Your task to perform on an android device: Add macbook air to the cart on target Image 0: 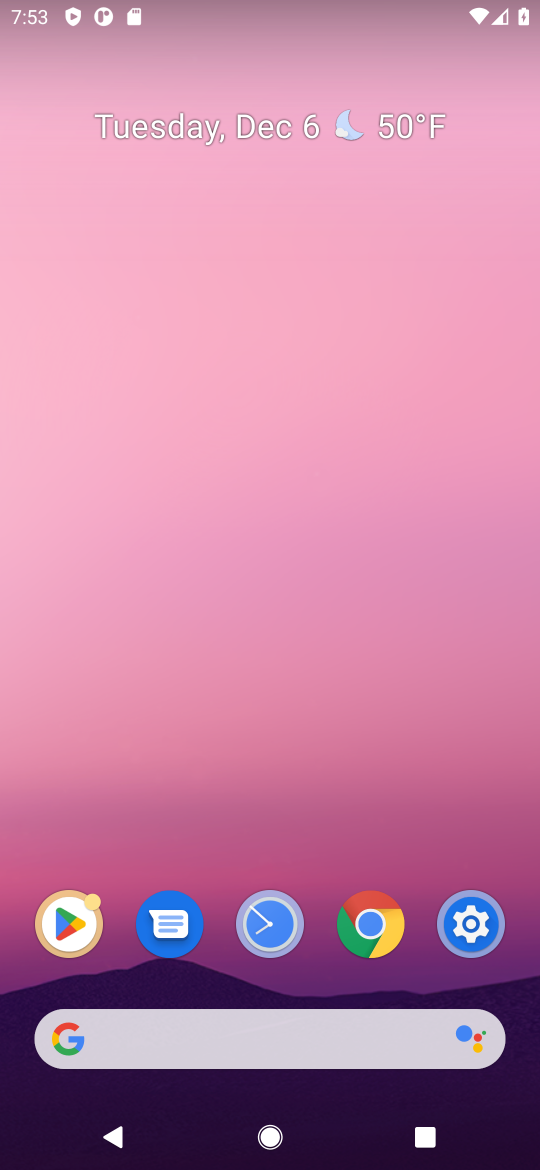
Step 0: click (254, 1043)
Your task to perform on an android device: Add macbook air to the cart on target Image 1: 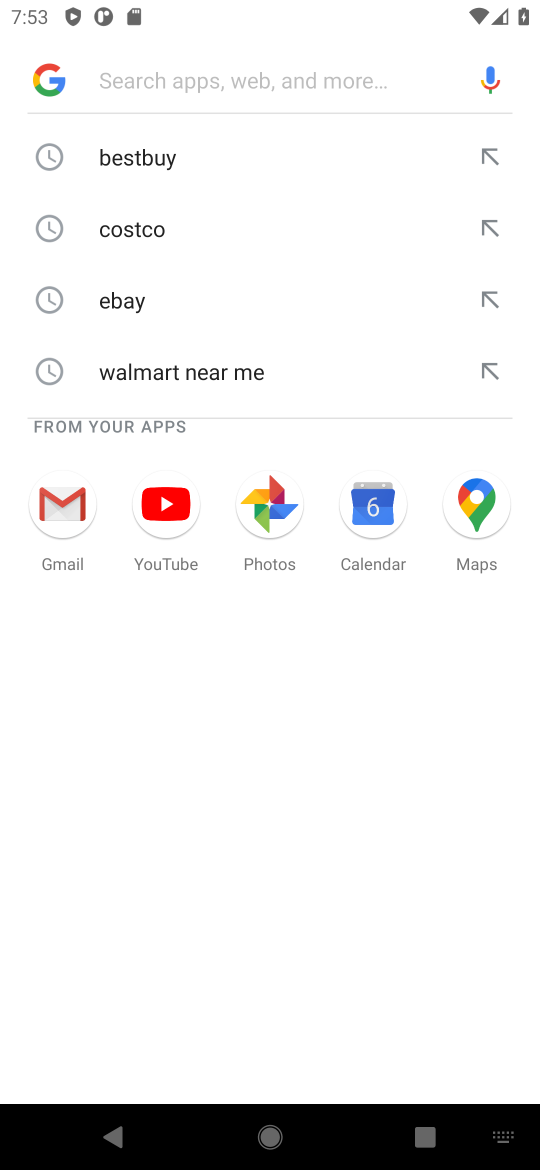
Step 1: type "target"
Your task to perform on an android device: Add macbook air to the cart on target Image 2: 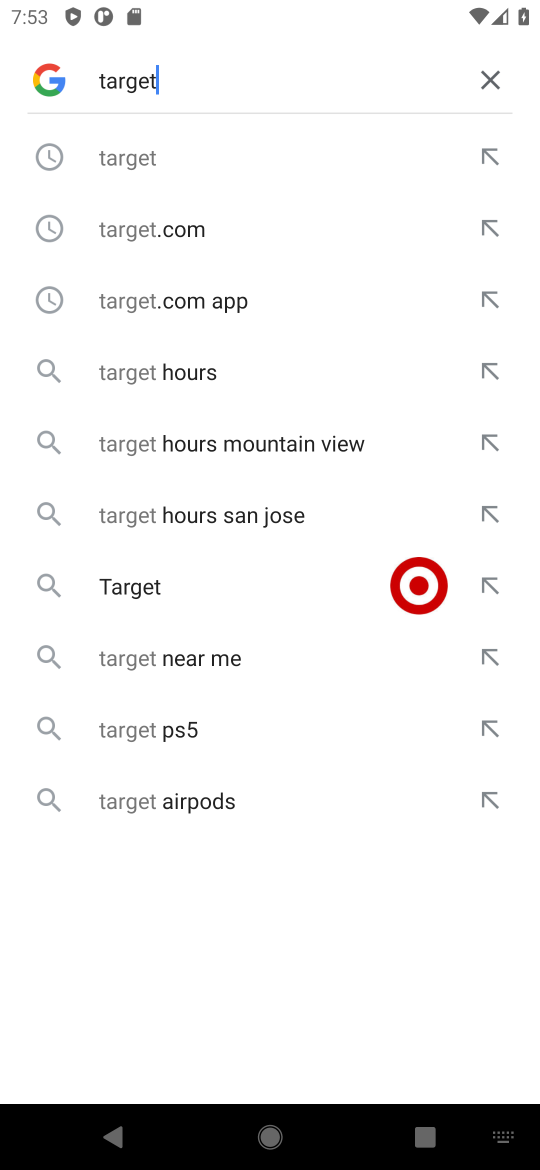
Step 2: click (149, 600)
Your task to perform on an android device: Add macbook air to the cart on target Image 3: 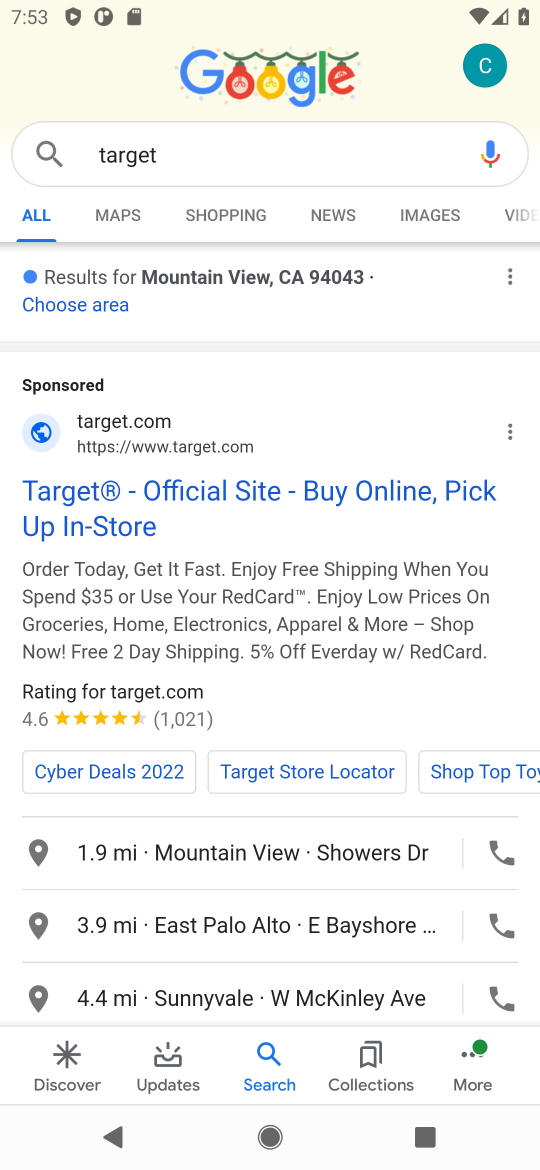
Step 3: click (121, 532)
Your task to perform on an android device: Add macbook air to the cart on target Image 4: 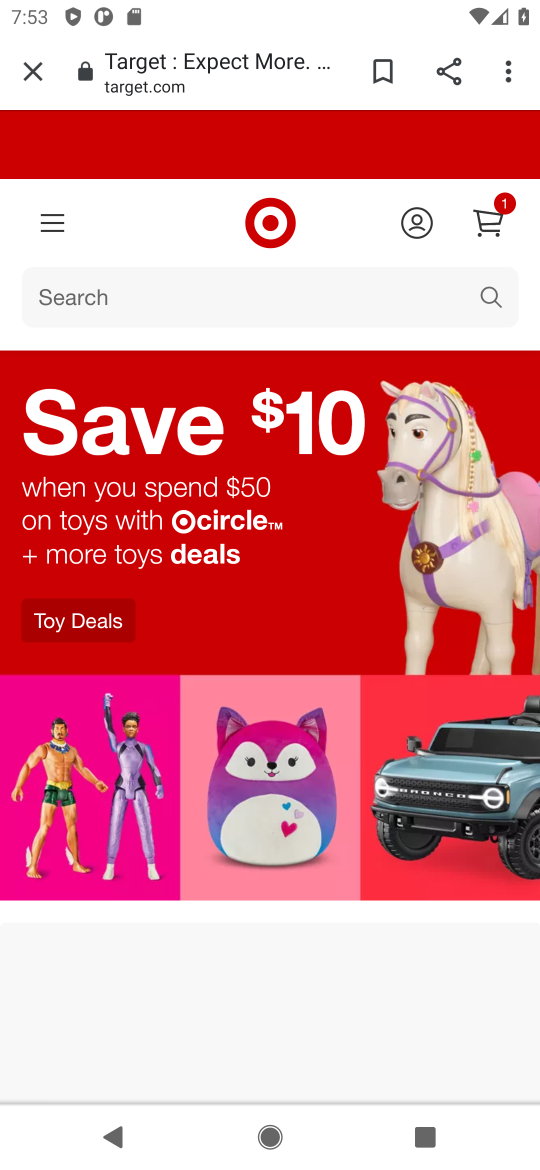
Step 4: click (119, 295)
Your task to perform on an android device: Add macbook air to the cart on target Image 5: 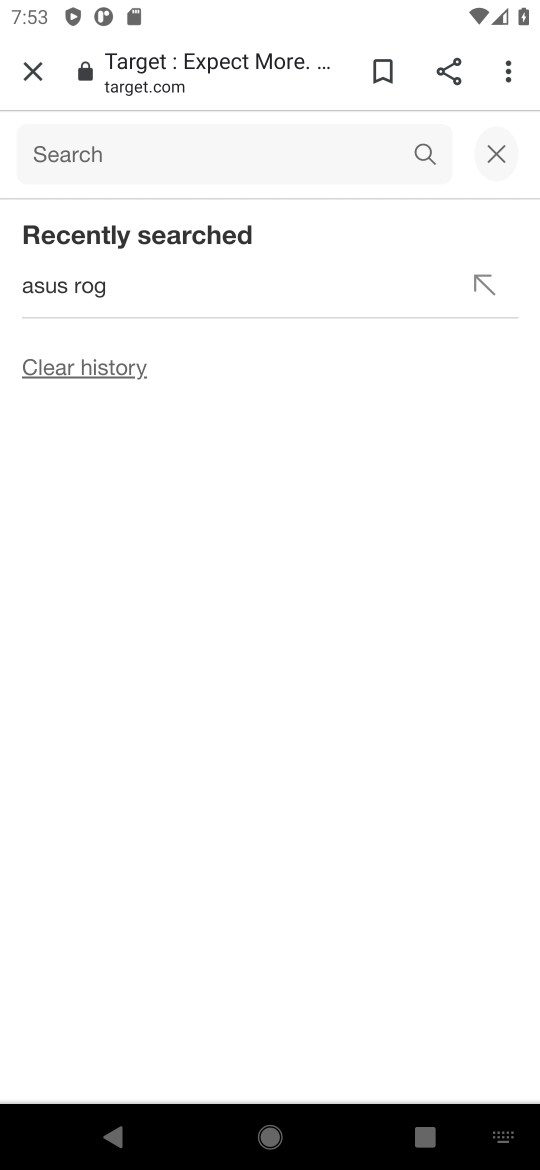
Step 5: type "macbook air"
Your task to perform on an android device: Add macbook air to the cart on target Image 6: 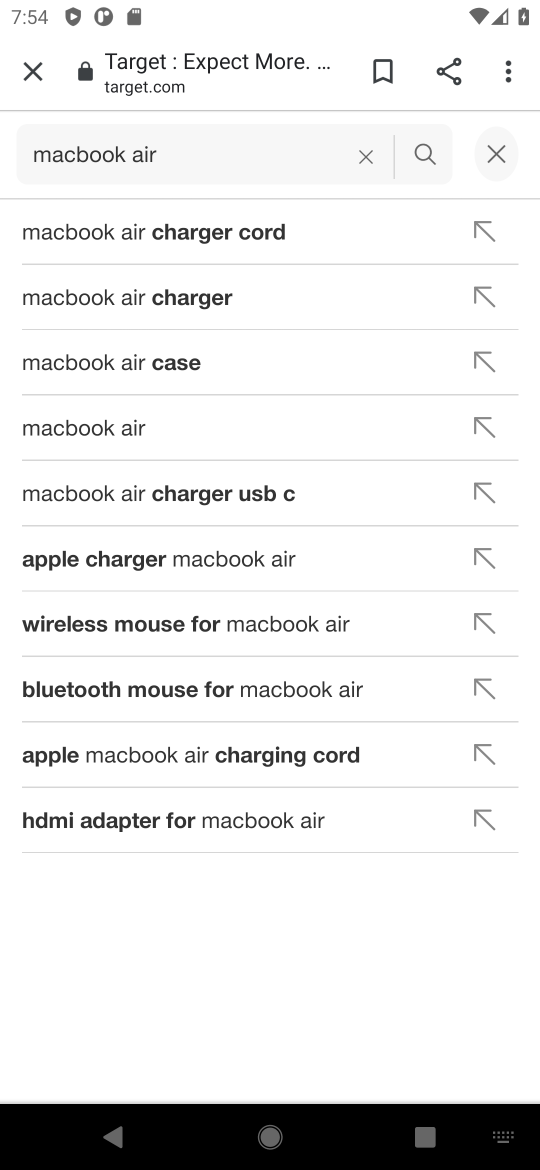
Step 6: click (433, 161)
Your task to perform on an android device: Add macbook air to the cart on target Image 7: 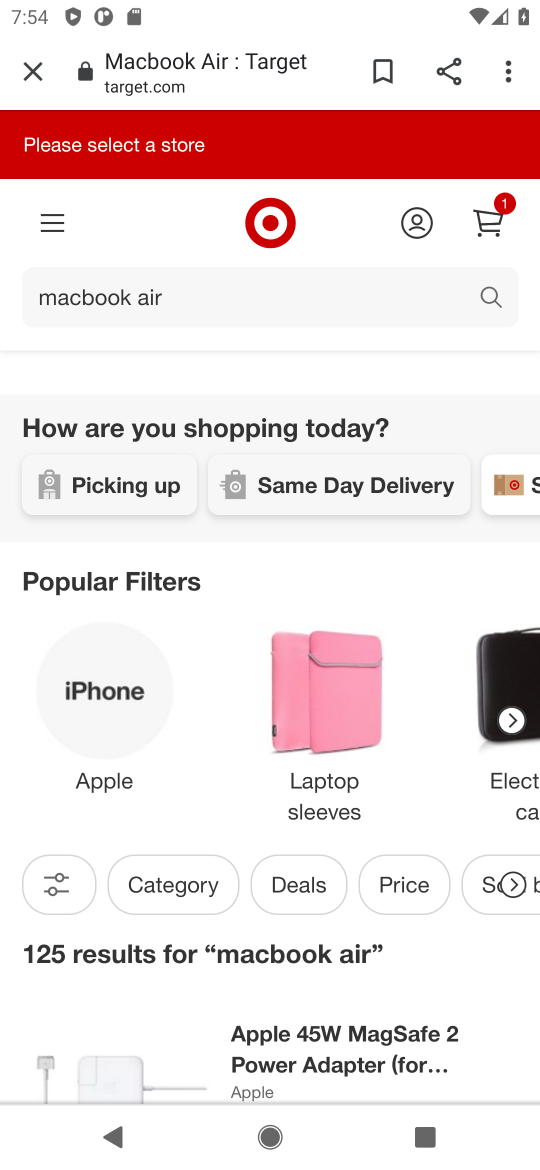
Step 7: task complete